Your task to perform on an android device: Go to Reddit.com Image 0: 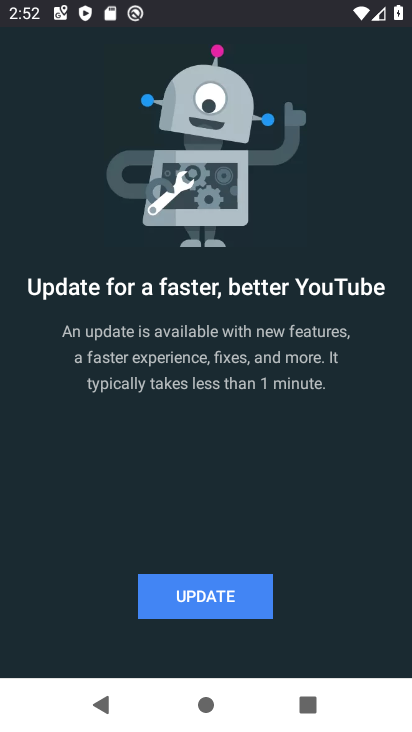
Step 0: press back button
Your task to perform on an android device: Go to Reddit.com Image 1: 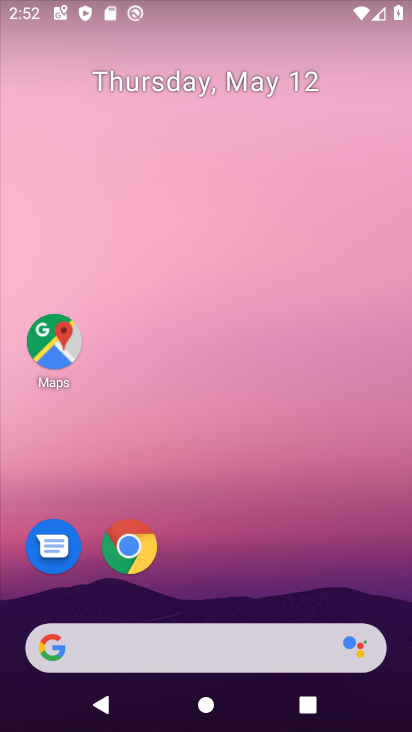
Step 1: drag from (283, 567) to (297, 217)
Your task to perform on an android device: Go to Reddit.com Image 2: 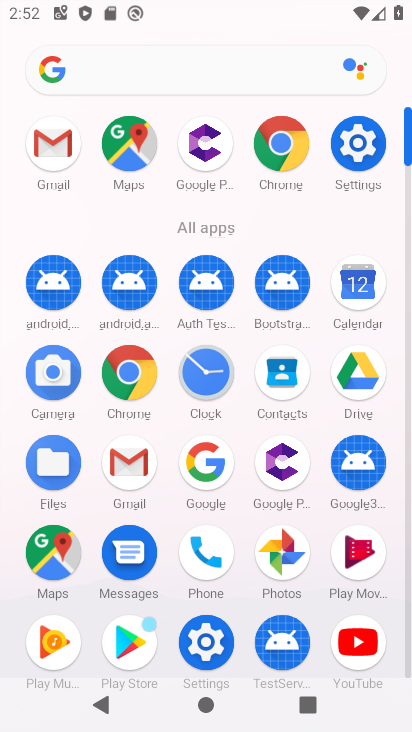
Step 2: click (289, 121)
Your task to perform on an android device: Go to Reddit.com Image 3: 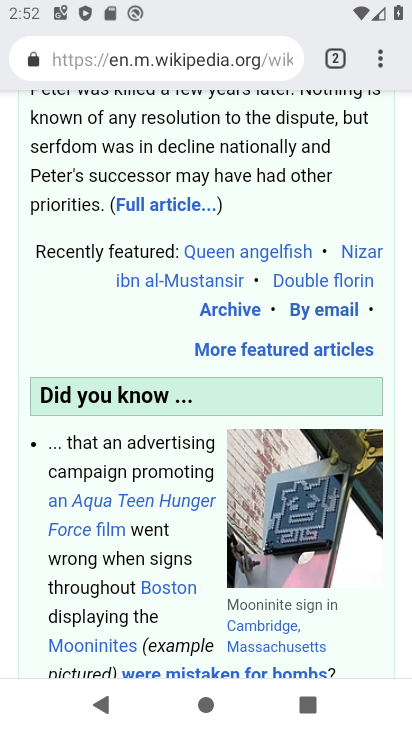
Step 3: click (365, 59)
Your task to perform on an android device: Go to Reddit.com Image 4: 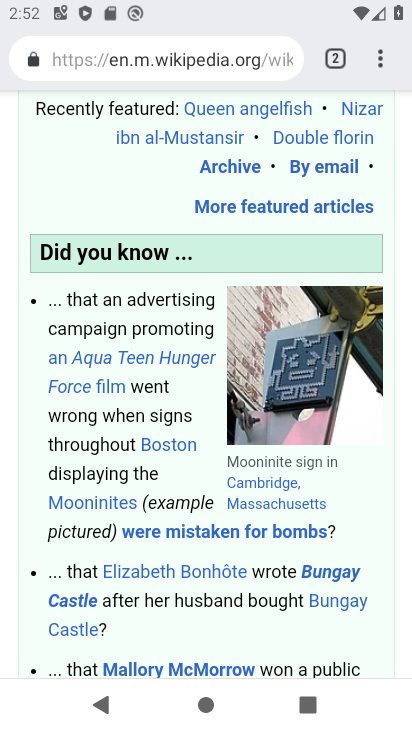
Step 4: click (363, 42)
Your task to perform on an android device: Go to Reddit.com Image 5: 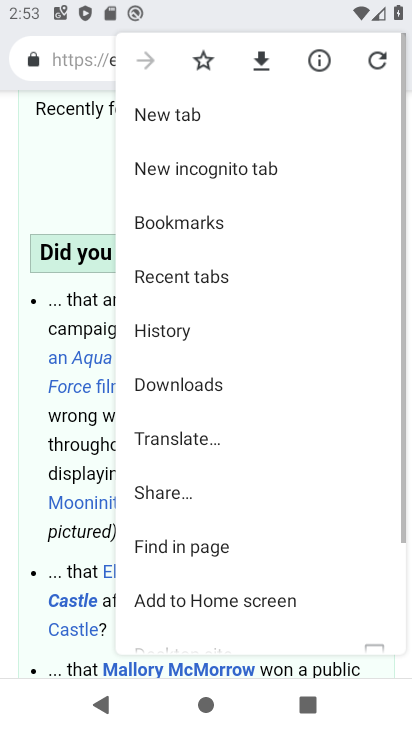
Step 5: click (169, 107)
Your task to perform on an android device: Go to Reddit.com Image 6: 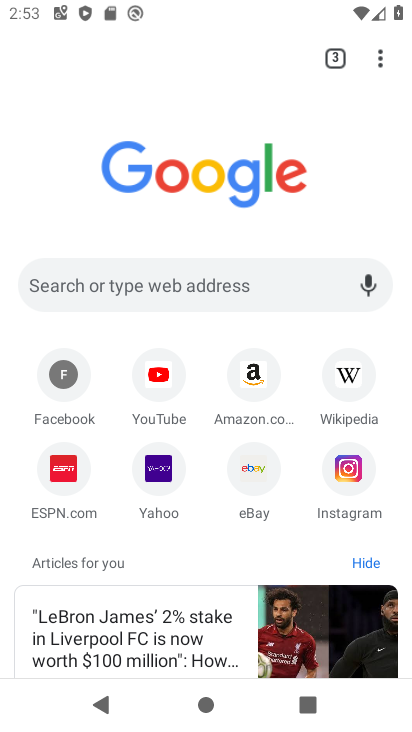
Step 6: click (204, 294)
Your task to perform on an android device: Go to Reddit.com Image 7: 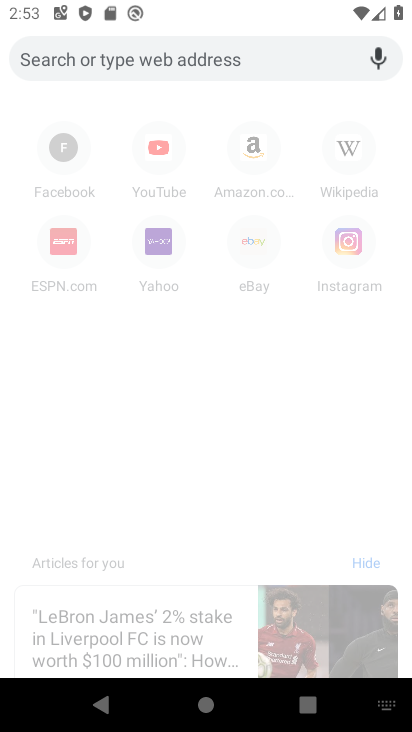
Step 7: type " Reddit.com"
Your task to perform on an android device: Go to Reddit.com Image 8: 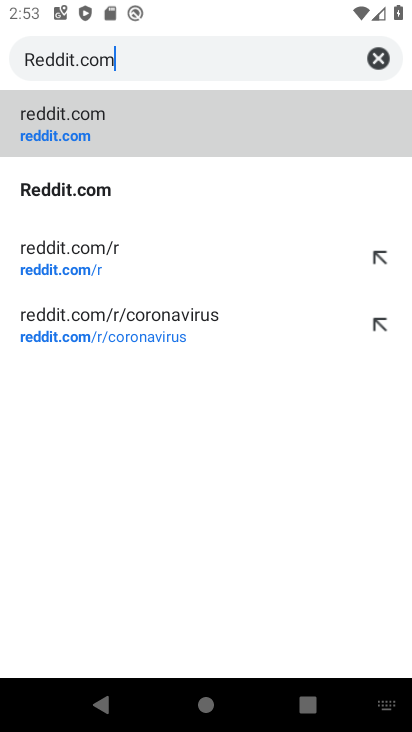
Step 8: click (110, 189)
Your task to perform on an android device: Go to Reddit.com Image 9: 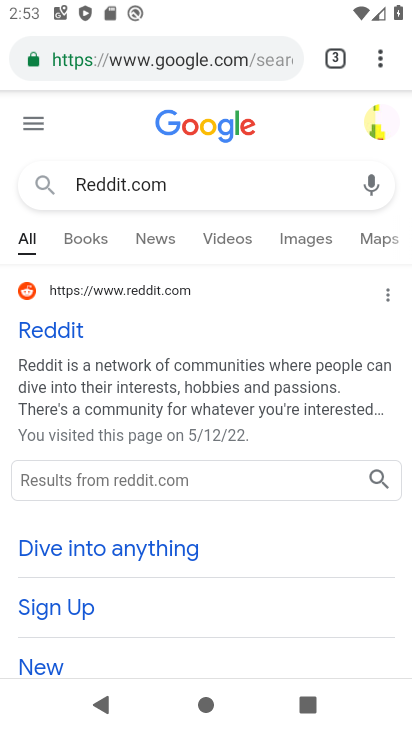
Step 9: task complete